Your task to perform on an android device: What's on my calendar tomorrow? Image 0: 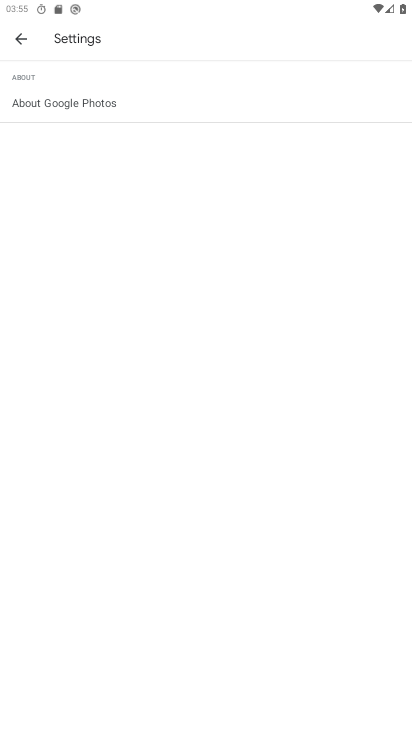
Step 0: press home button
Your task to perform on an android device: What's on my calendar tomorrow? Image 1: 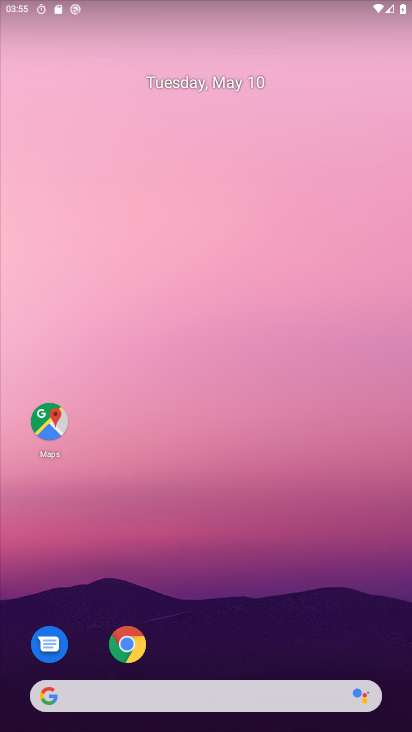
Step 1: drag from (209, 657) to (263, 59)
Your task to perform on an android device: What's on my calendar tomorrow? Image 2: 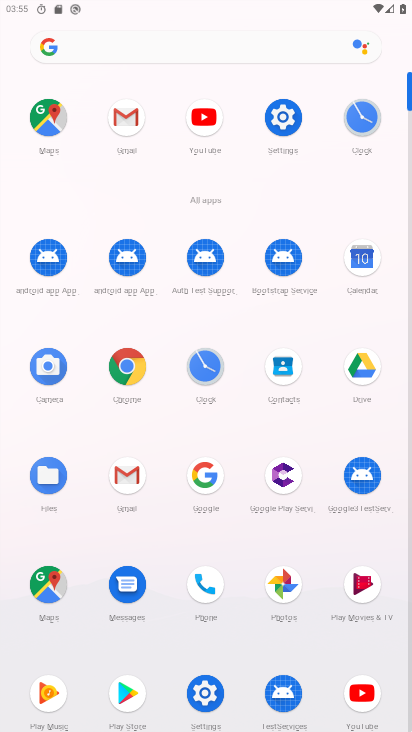
Step 2: click (358, 252)
Your task to perform on an android device: What's on my calendar tomorrow? Image 3: 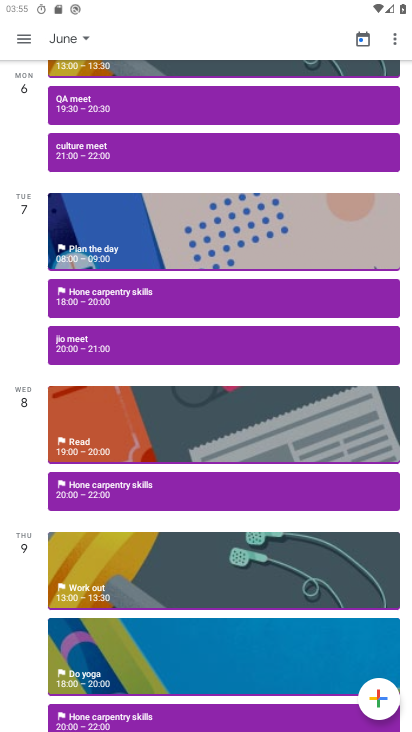
Step 3: click (24, 36)
Your task to perform on an android device: What's on my calendar tomorrow? Image 4: 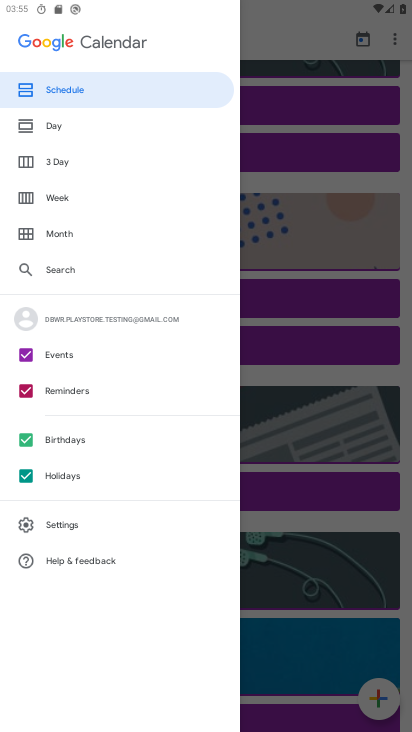
Step 4: click (54, 122)
Your task to perform on an android device: What's on my calendar tomorrow? Image 5: 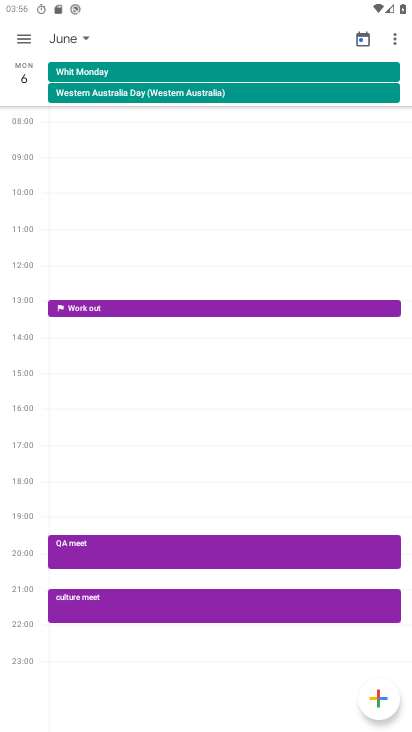
Step 5: click (35, 83)
Your task to perform on an android device: What's on my calendar tomorrow? Image 6: 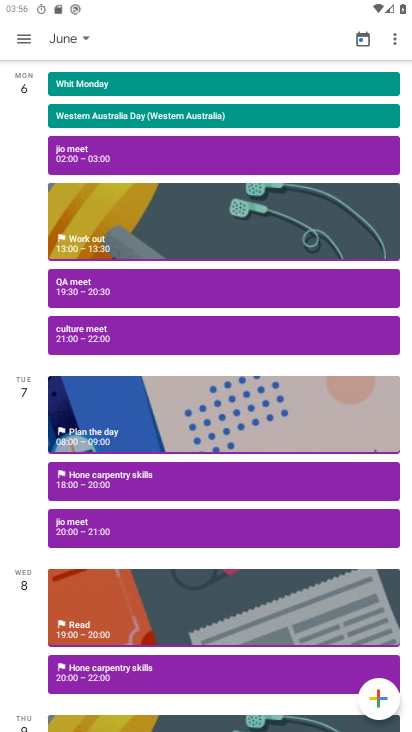
Step 6: click (79, 36)
Your task to perform on an android device: What's on my calendar tomorrow? Image 7: 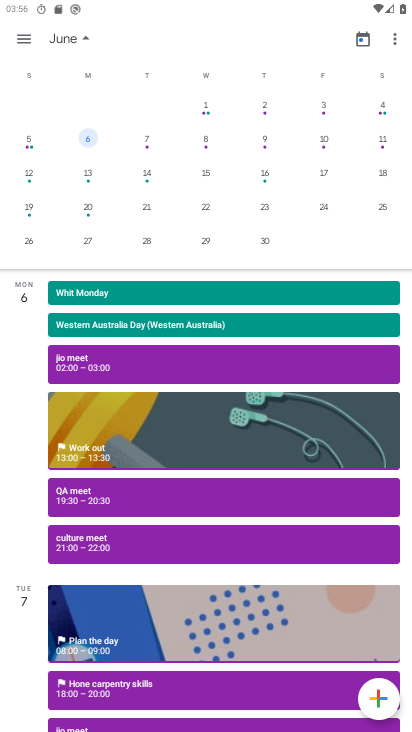
Step 7: drag from (31, 181) to (345, 208)
Your task to perform on an android device: What's on my calendar tomorrow? Image 8: 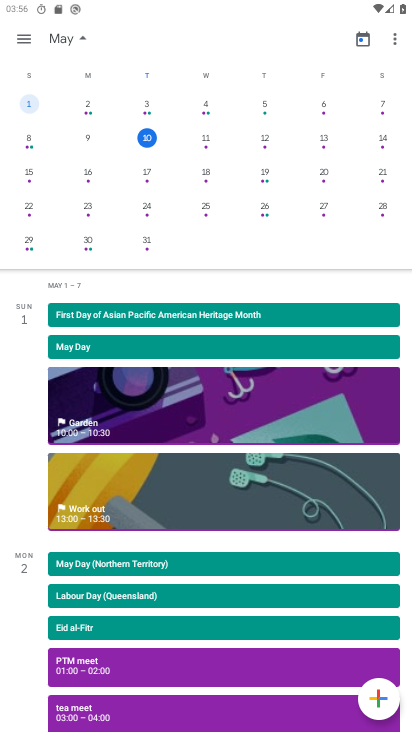
Step 8: click (208, 131)
Your task to perform on an android device: What's on my calendar tomorrow? Image 9: 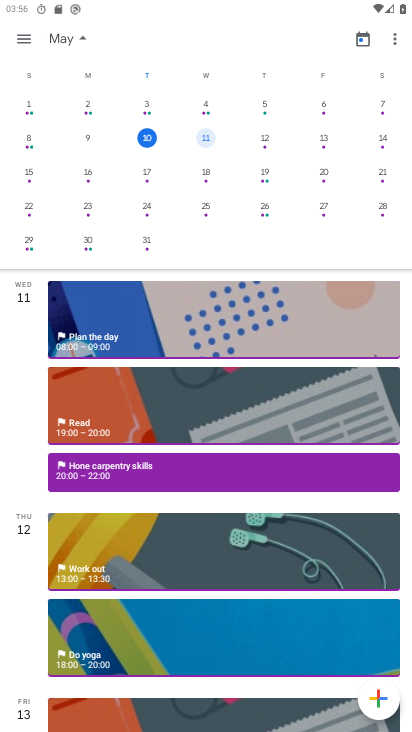
Step 9: click (31, 330)
Your task to perform on an android device: What's on my calendar tomorrow? Image 10: 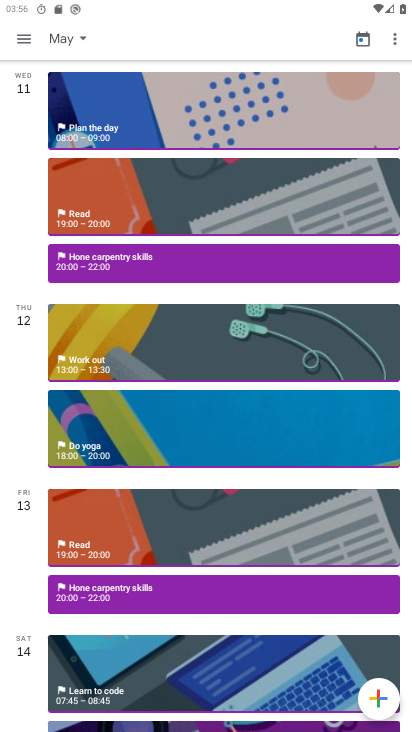
Step 10: click (31, 123)
Your task to perform on an android device: What's on my calendar tomorrow? Image 11: 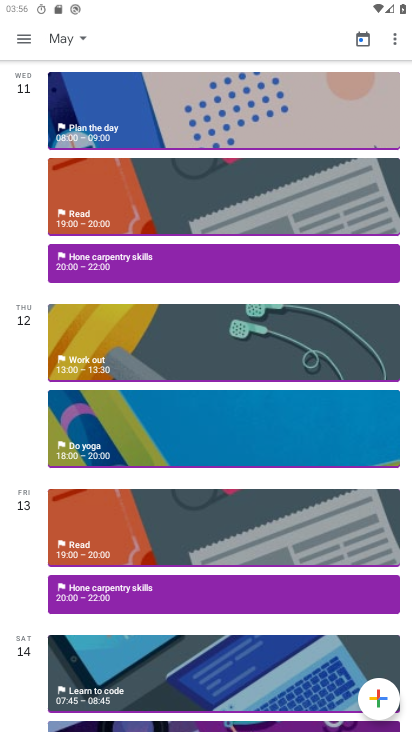
Step 11: click (22, 125)
Your task to perform on an android device: What's on my calendar tomorrow? Image 12: 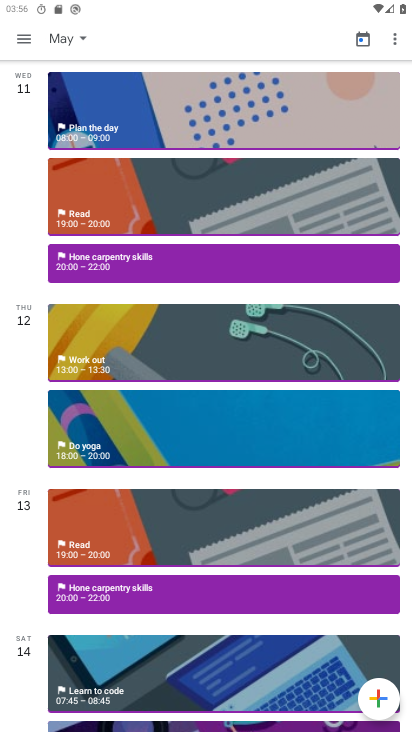
Step 12: click (19, 85)
Your task to perform on an android device: What's on my calendar tomorrow? Image 13: 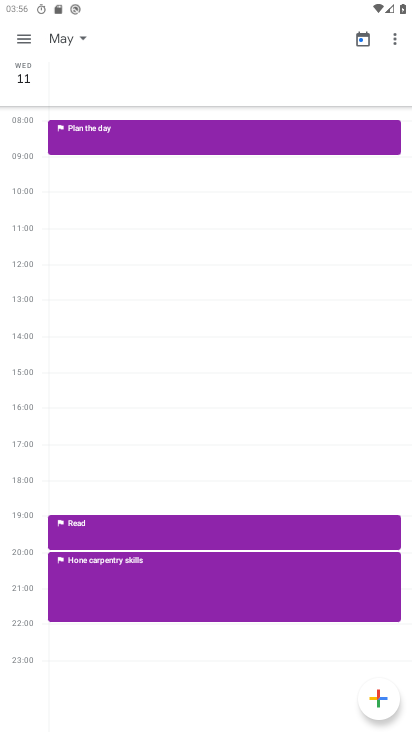
Step 13: drag from (19, 379) to (39, 113)
Your task to perform on an android device: What's on my calendar tomorrow? Image 14: 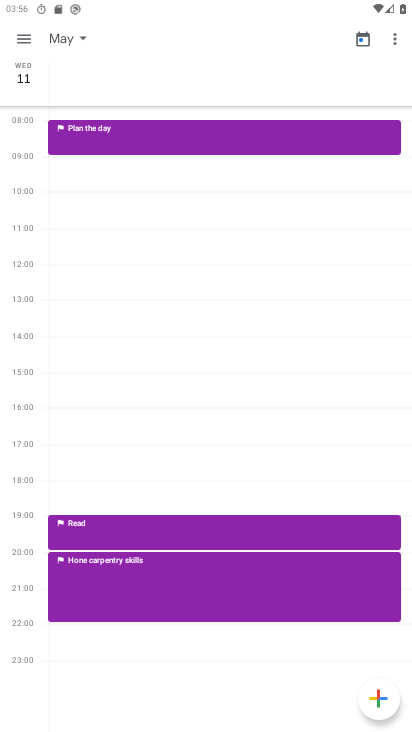
Step 14: drag from (31, 603) to (44, 258)
Your task to perform on an android device: What's on my calendar tomorrow? Image 15: 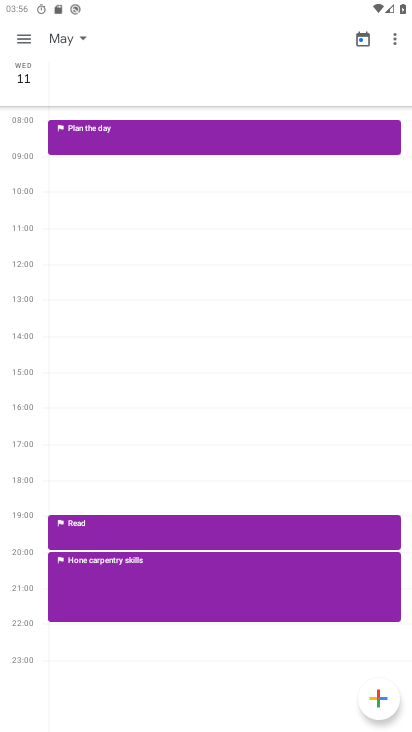
Step 15: click (52, 173)
Your task to perform on an android device: What's on my calendar tomorrow? Image 16: 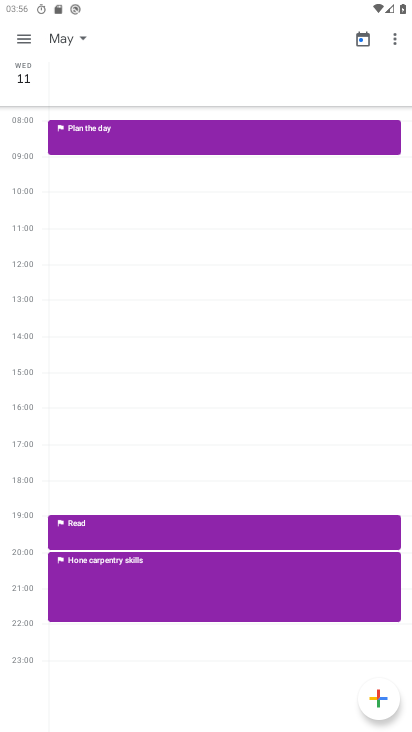
Step 16: task complete